Your task to perform on an android device: Go to notification settings Image 0: 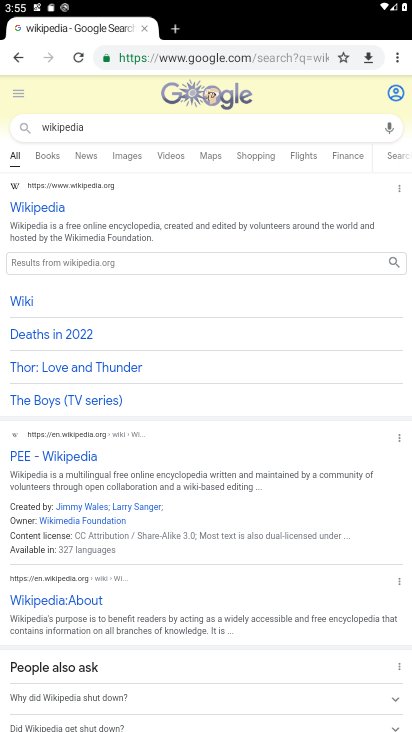
Step 0: press home button
Your task to perform on an android device: Go to notification settings Image 1: 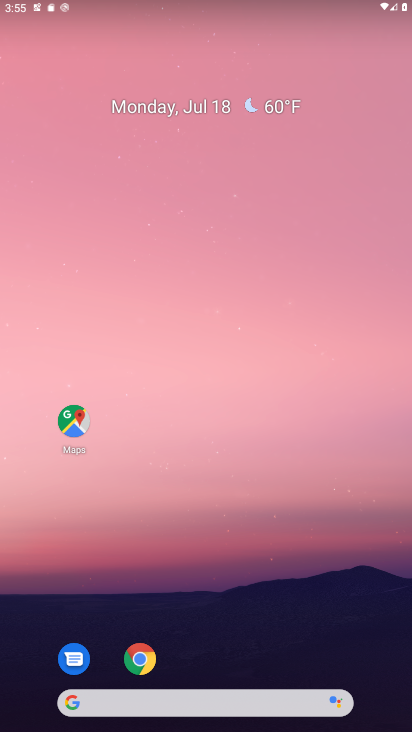
Step 1: drag from (274, 703) to (299, 6)
Your task to perform on an android device: Go to notification settings Image 2: 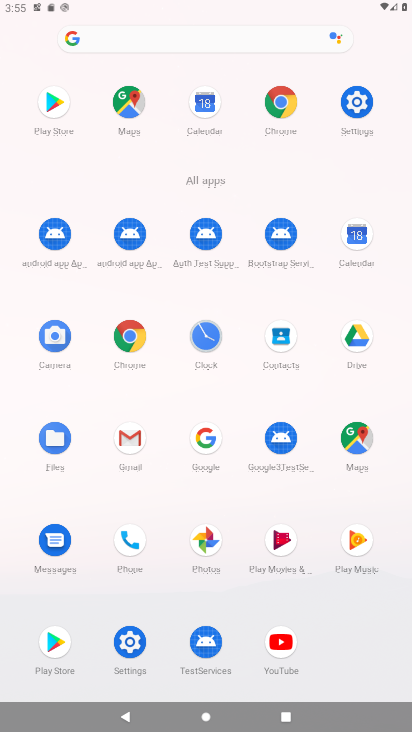
Step 2: click (350, 96)
Your task to perform on an android device: Go to notification settings Image 3: 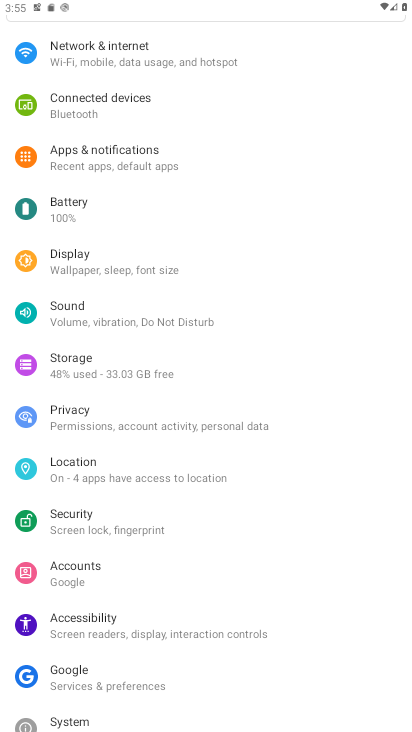
Step 3: click (105, 163)
Your task to perform on an android device: Go to notification settings Image 4: 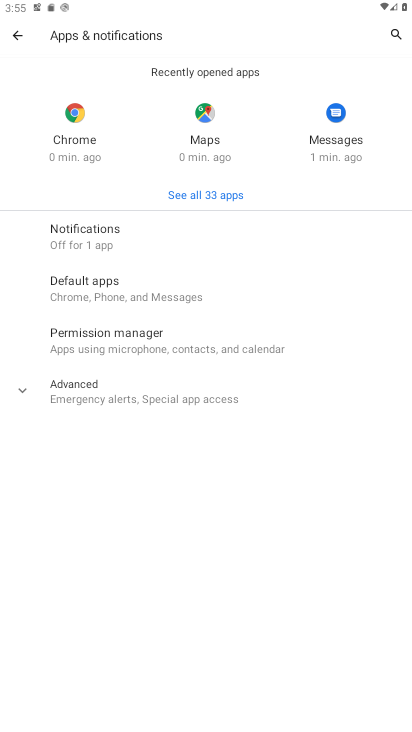
Step 4: task complete